Your task to perform on an android device: delete a single message in the gmail app Image 0: 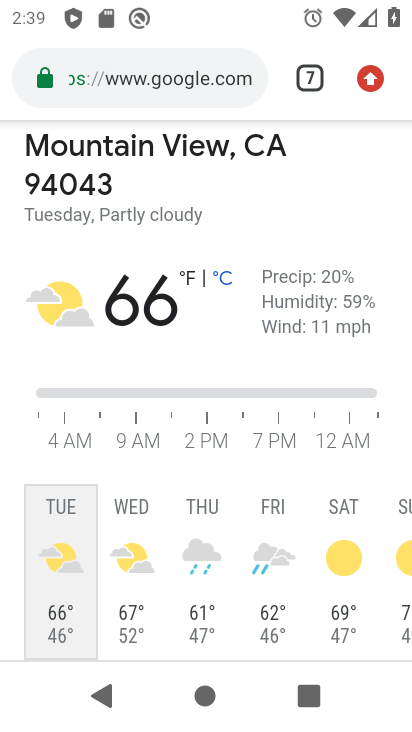
Step 0: press home button
Your task to perform on an android device: delete a single message in the gmail app Image 1: 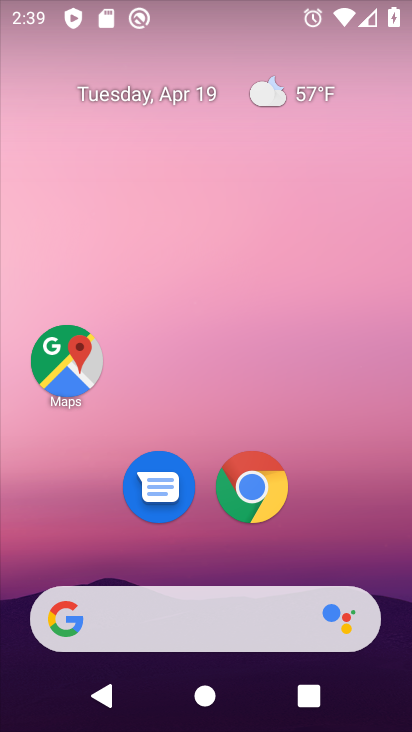
Step 1: drag from (356, 375) to (356, 120)
Your task to perform on an android device: delete a single message in the gmail app Image 2: 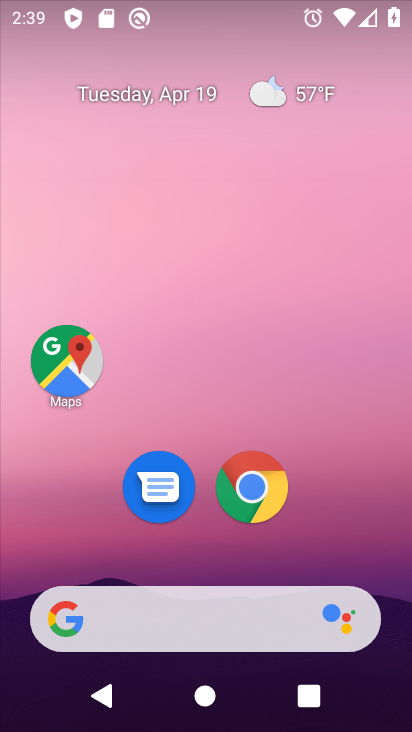
Step 2: drag from (371, 402) to (371, 138)
Your task to perform on an android device: delete a single message in the gmail app Image 3: 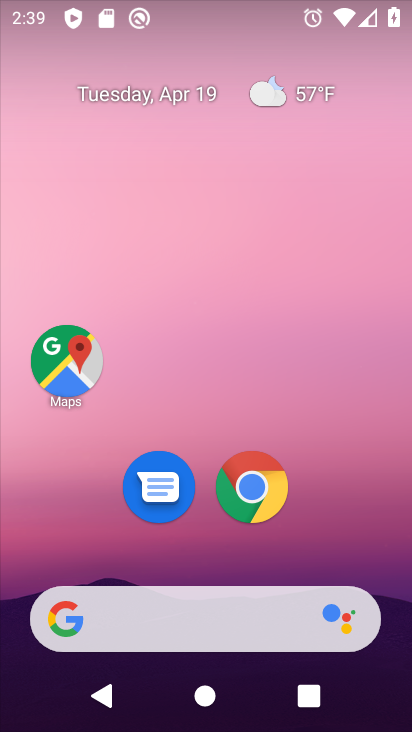
Step 3: drag from (393, 540) to (295, 131)
Your task to perform on an android device: delete a single message in the gmail app Image 4: 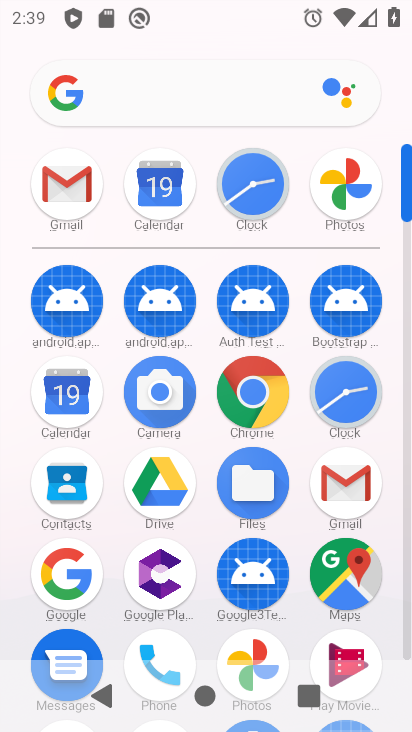
Step 4: click (344, 498)
Your task to perform on an android device: delete a single message in the gmail app Image 5: 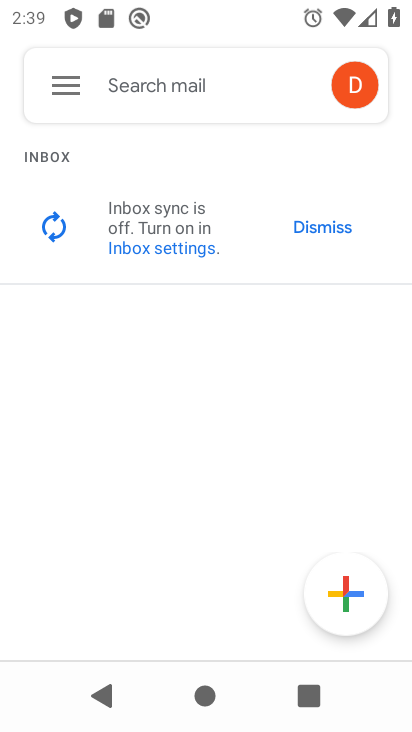
Step 5: task complete